Your task to perform on an android device: Play the last video I watched on Youtube Image 0: 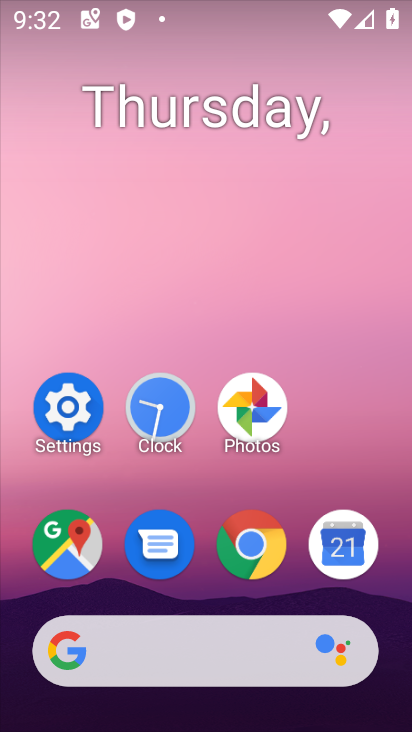
Step 0: drag from (344, 422) to (371, 5)
Your task to perform on an android device: Play the last video I watched on Youtube Image 1: 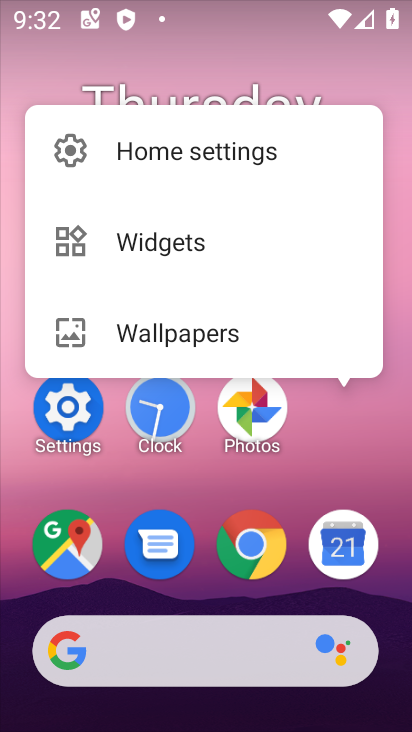
Step 1: click (339, 425)
Your task to perform on an android device: Play the last video I watched on Youtube Image 2: 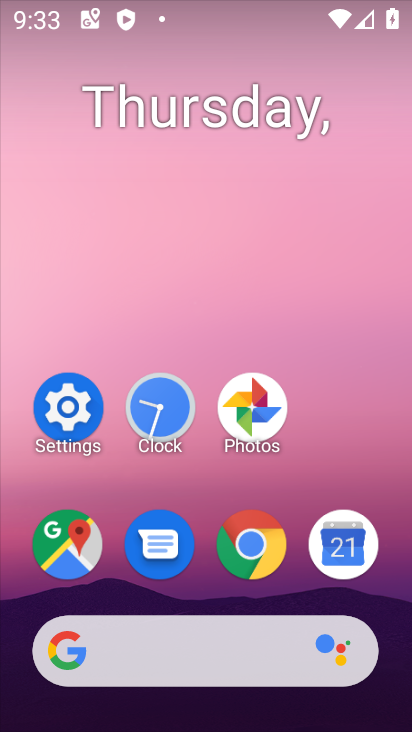
Step 2: drag from (237, 720) to (282, 0)
Your task to perform on an android device: Play the last video I watched on Youtube Image 3: 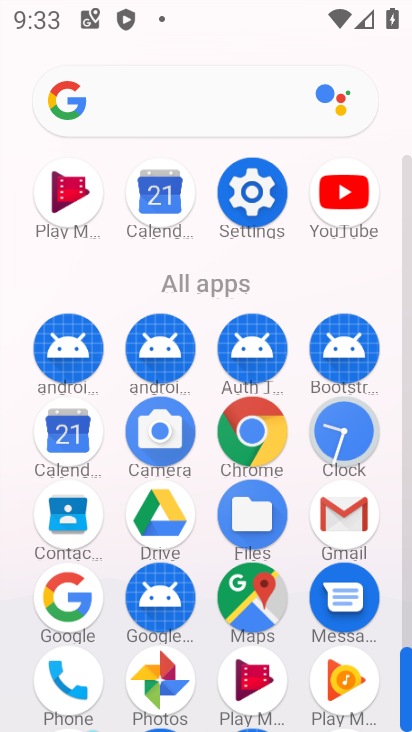
Step 3: click (340, 195)
Your task to perform on an android device: Play the last video I watched on Youtube Image 4: 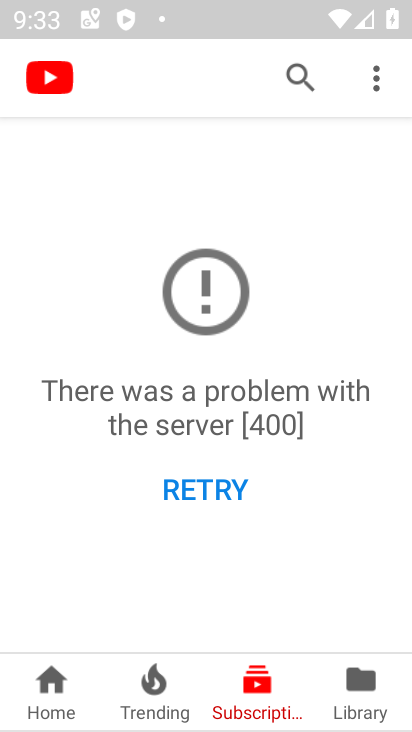
Step 4: click (355, 680)
Your task to perform on an android device: Play the last video I watched on Youtube Image 5: 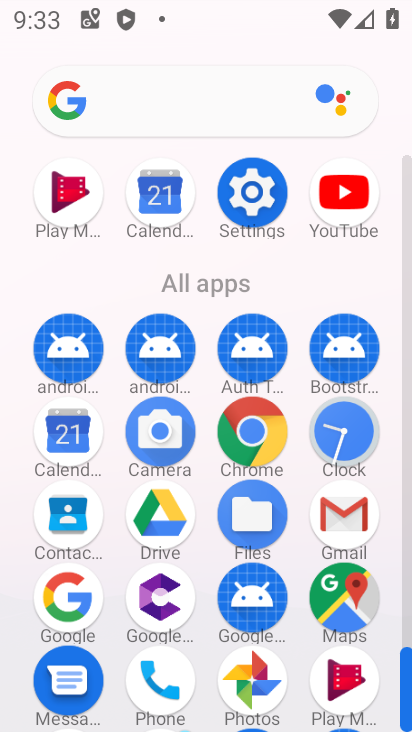
Step 5: task complete